Your task to perform on an android device: open app "Indeed Job Search" (install if not already installed) Image 0: 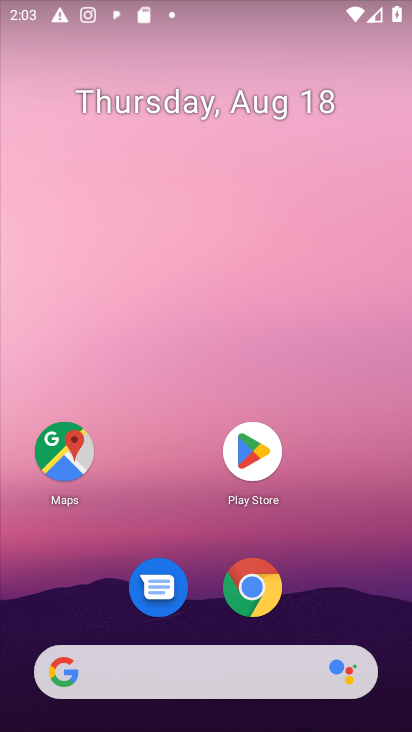
Step 0: click (250, 457)
Your task to perform on an android device: open app "Indeed Job Search" (install if not already installed) Image 1: 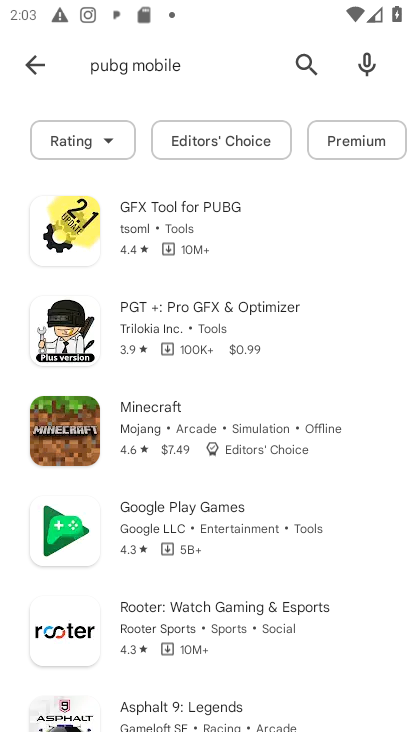
Step 1: click (303, 58)
Your task to perform on an android device: open app "Indeed Job Search" (install if not already installed) Image 2: 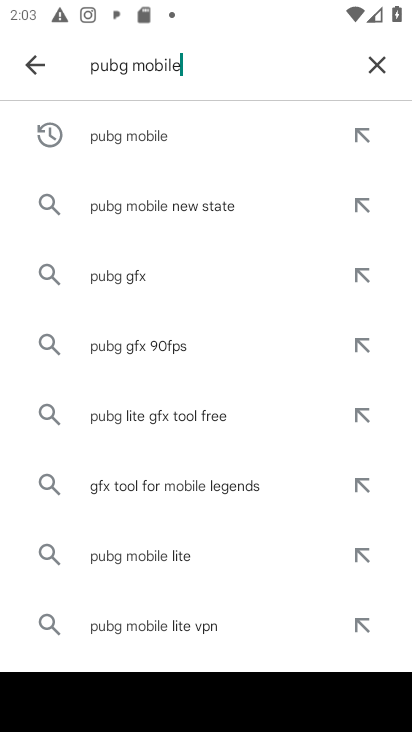
Step 2: click (374, 61)
Your task to perform on an android device: open app "Indeed Job Search" (install if not already installed) Image 3: 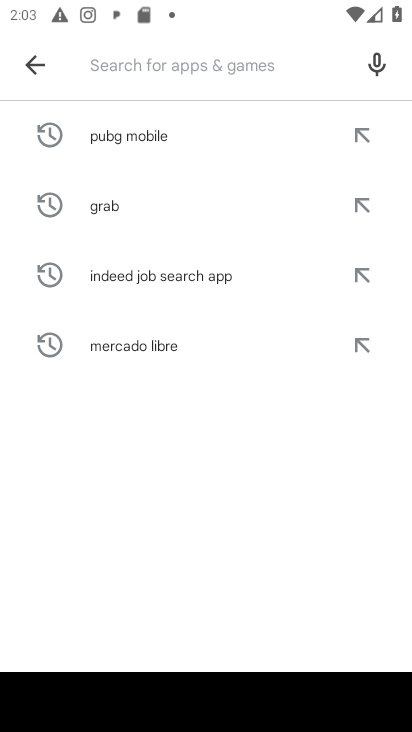
Step 3: type "Indeed Job Search"
Your task to perform on an android device: open app "Indeed Job Search" (install if not already installed) Image 4: 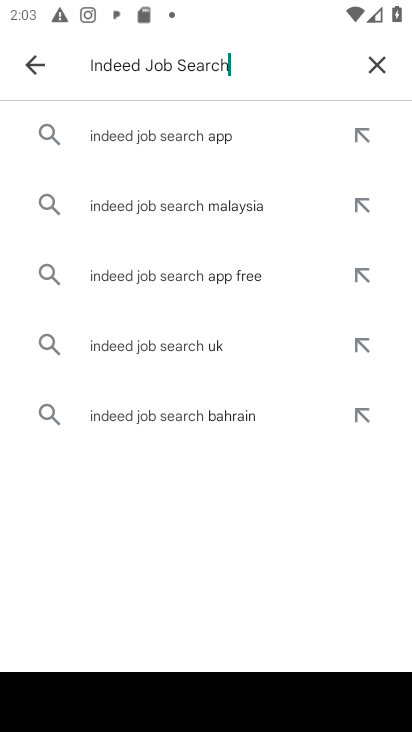
Step 4: click (159, 133)
Your task to perform on an android device: open app "Indeed Job Search" (install if not already installed) Image 5: 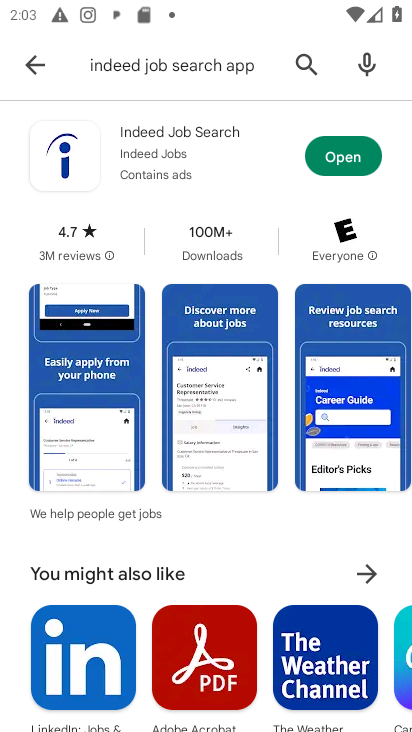
Step 5: click (339, 150)
Your task to perform on an android device: open app "Indeed Job Search" (install if not already installed) Image 6: 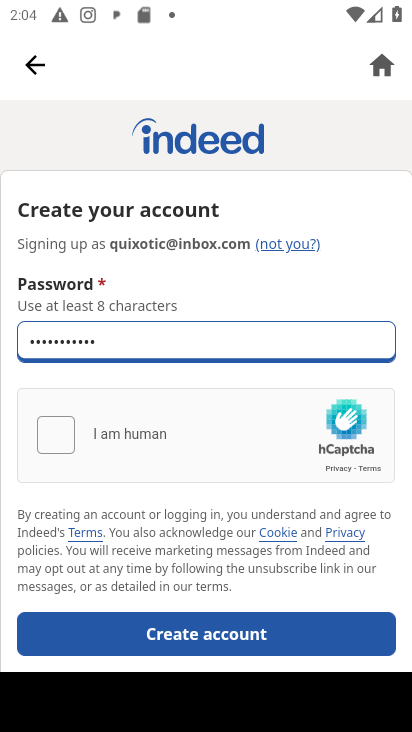
Step 6: task complete